Your task to perform on an android device: Open Amazon Image 0: 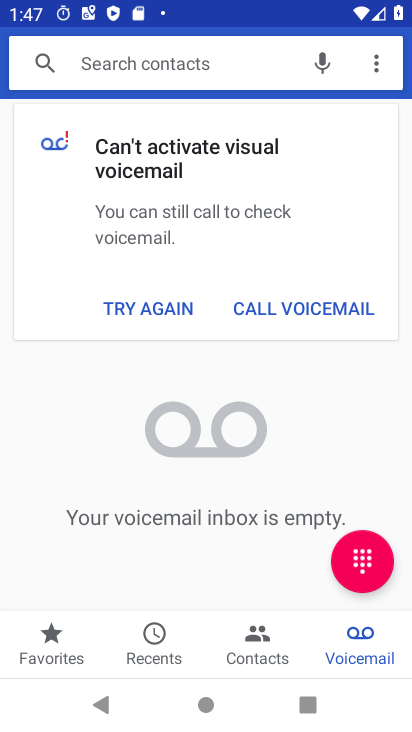
Step 0: press home button
Your task to perform on an android device: Open Amazon Image 1: 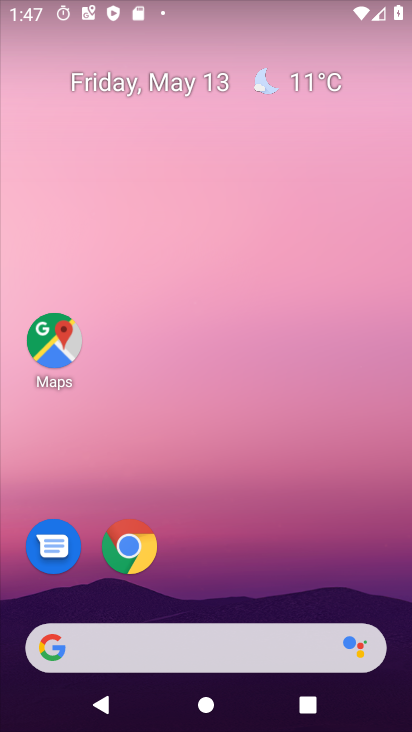
Step 1: click (152, 543)
Your task to perform on an android device: Open Amazon Image 2: 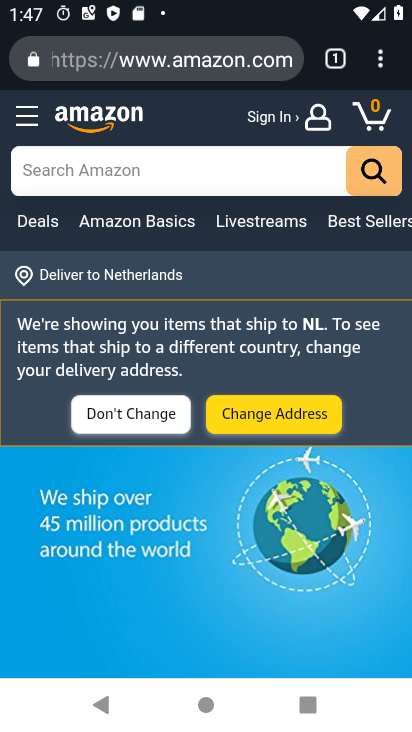
Step 2: task complete